Your task to perform on an android device: Open location settings Image 0: 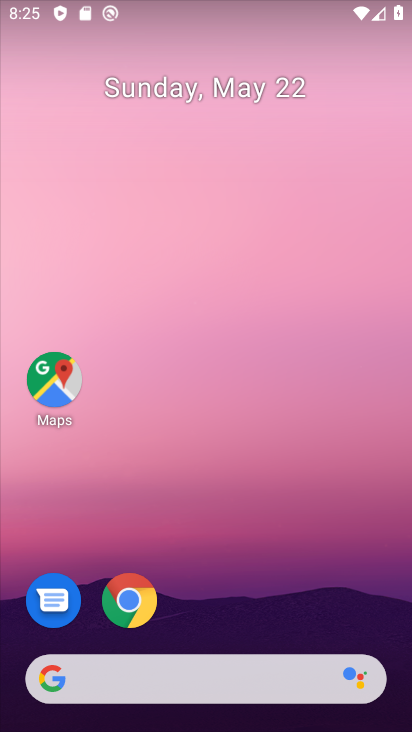
Step 0: drag from (199, 595) to (181, 155)
Your task to perform on an android device: Open location settings Image 1: 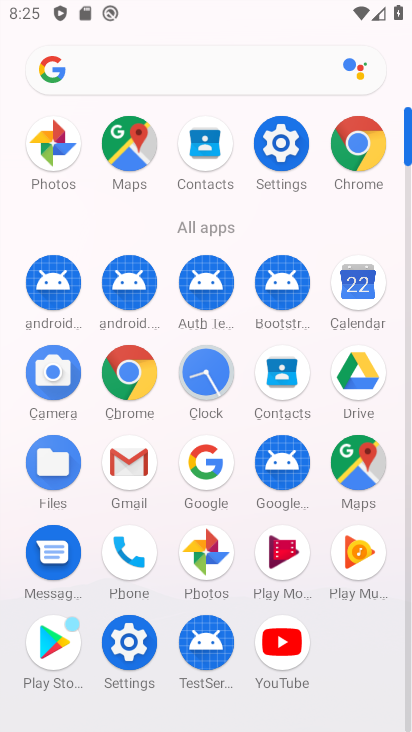
Step 1: click (277, 152)
Your task to perform on an android device: Open location settings Image 2: 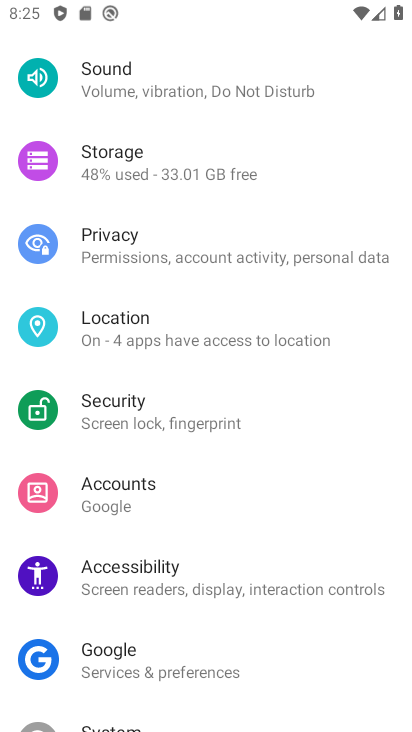
Step 2: click (105, 351)
Your task to perform on an android device: Open location settings Image 3: 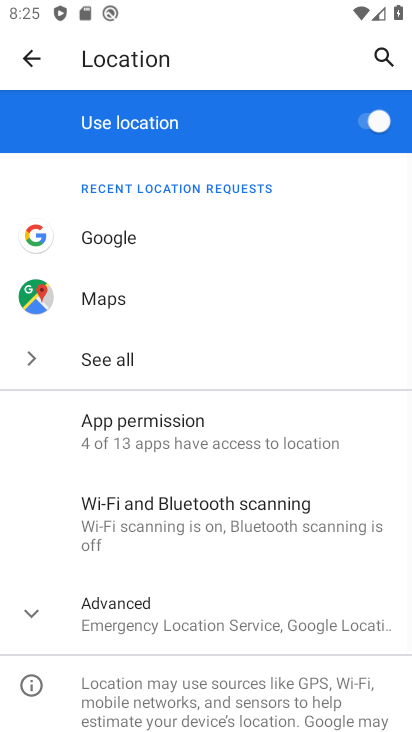
Step 3: task complete